Your task to perform on an android device: Go to wifi settings Image 0: 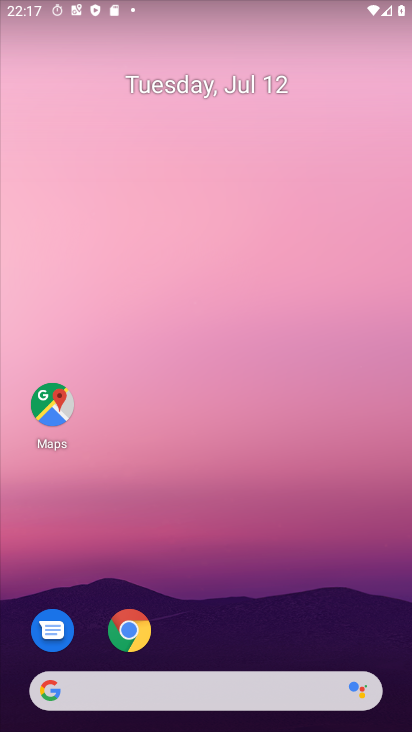
Step 0: drag from (103, 9) to (166, 627)
Your task to perform on an android device: Go to wifi settings Image 1: 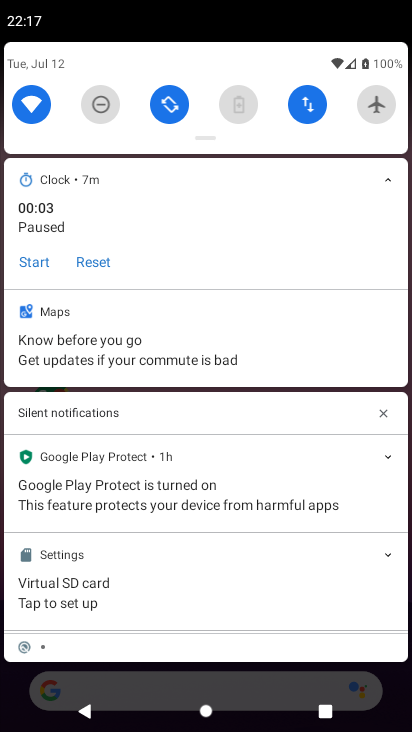
Step 1: click (35, 104)
Your task to perform on an android device: Go to wifi settings Image 2: 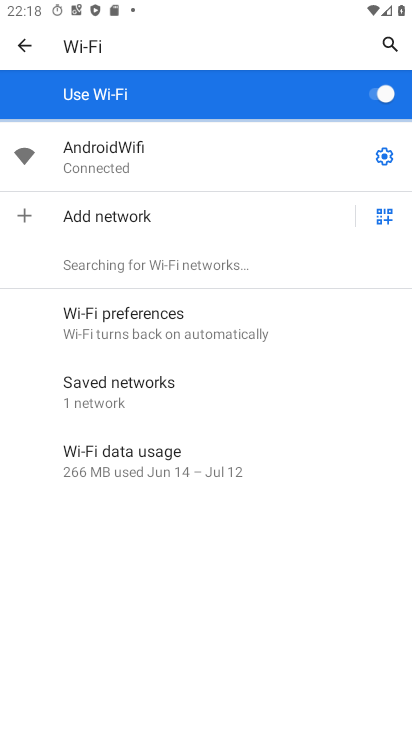
Step 2: task complete